Your task to perform on an android device: turn on airplane mode Image 0: 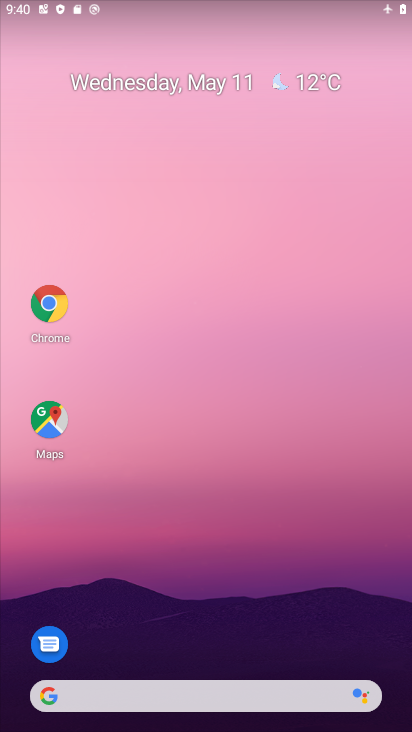
Step 0: drag from (206, 620) to (203, 237)
Your task to perform on an android device: turn on airplane mode Image 1: 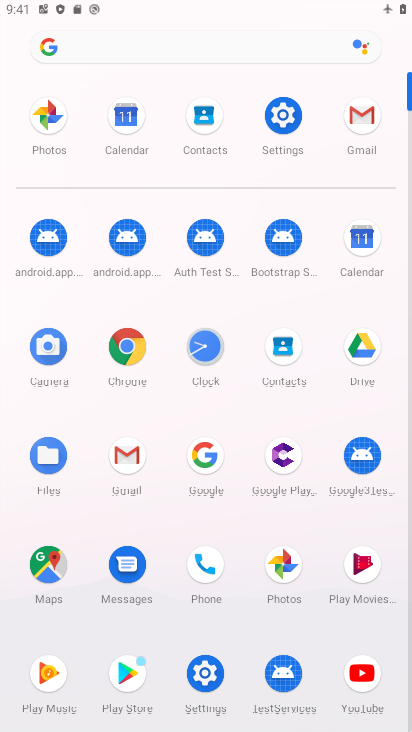
Step 1: click (290, 122)
Your task to perform on an android device: turn on airplane mode Image 2: 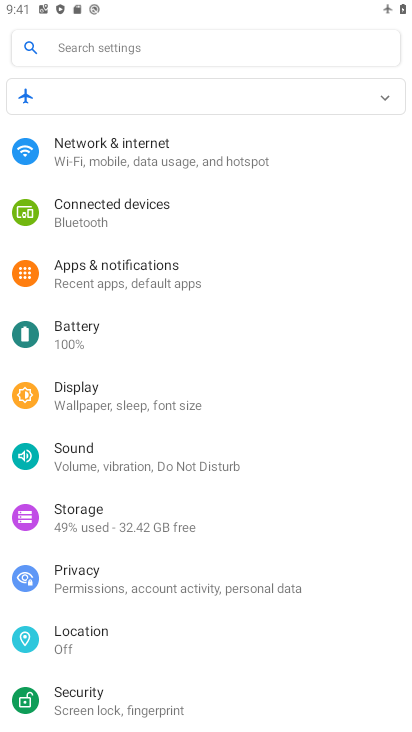
Step 2: click (164, 152)
Your task to perform on an android device: turn on airplane mode Image 3: 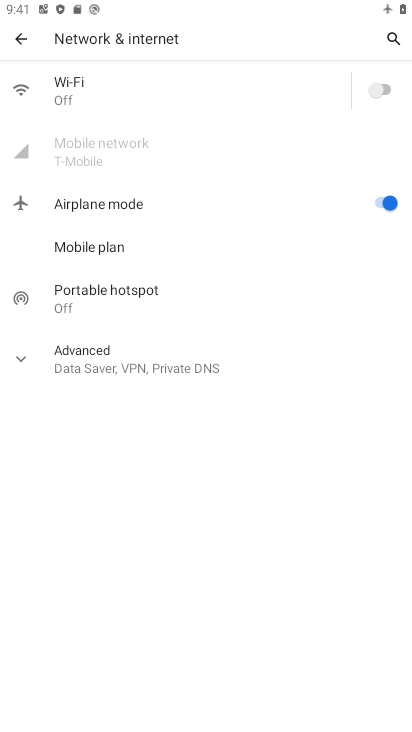
Step 3: task complete